Your task to perform on an android device: Open Android settings Image 0: 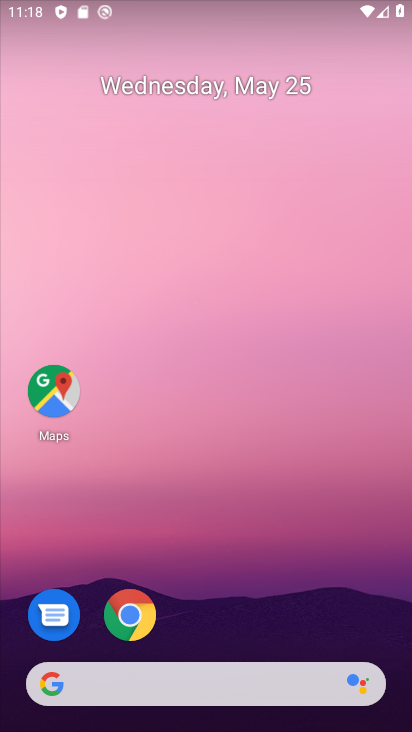
Step 0: click (169, 142)
Your task to perform on an android device: Open Android settings Image 1: 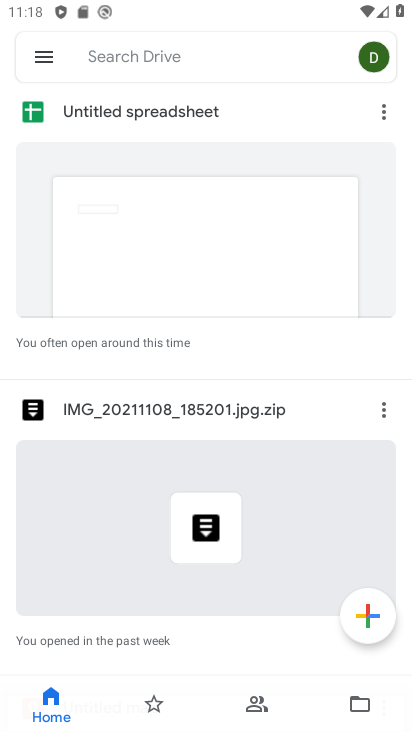
Step 1: press home button
Your task to perform on an android device: Open Android settings Image 2: 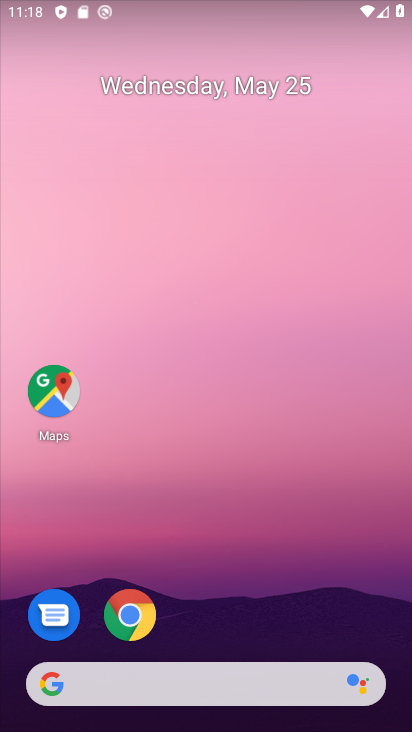
Step 2: drag from (233, 654) to (183, 37)
Your task to perform on an android device: Open Android settings Image 3: 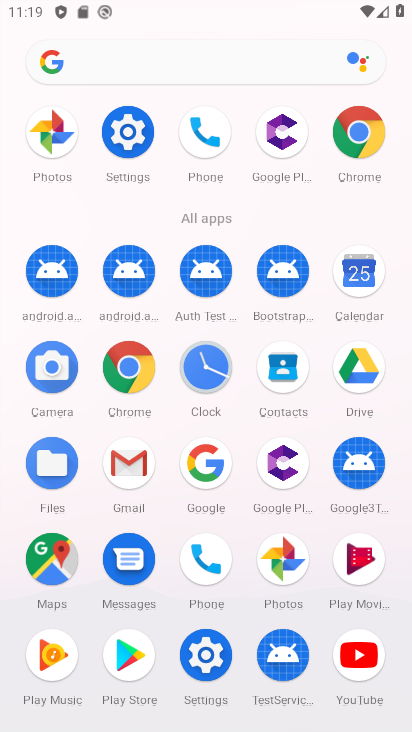
Step 3: click (112, 136)
Your task to perform on an android device: Open Android settings Image 4: 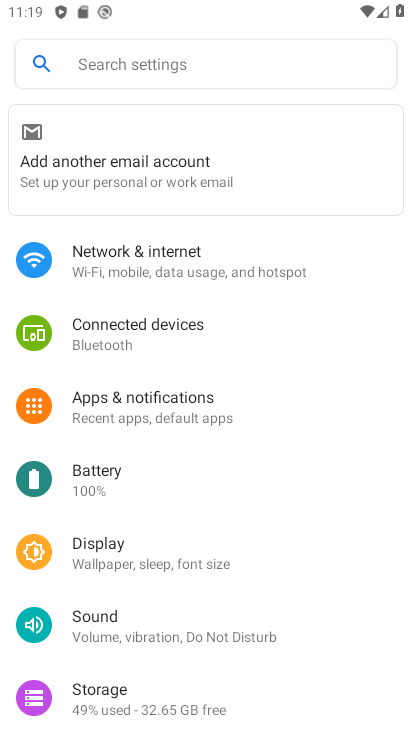
Step 4: task complete